Your task to perform on an android device: add a label to a message in the gmail app Image 0: 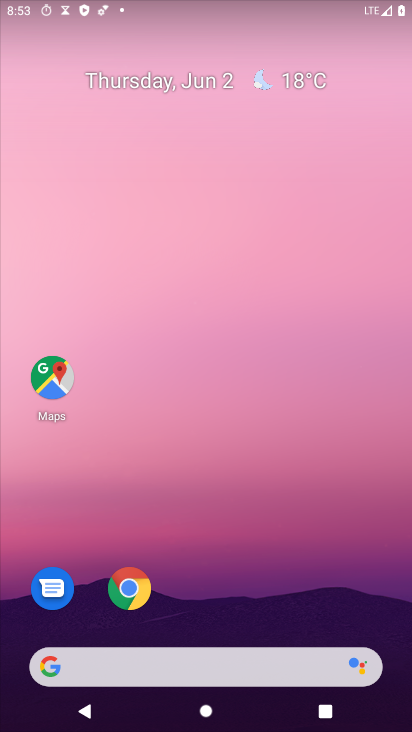
Step 0: drag from (198, 636) to (239, 113)
Your task to perform on an android device: add a label to a message in the gmail app Image 1: 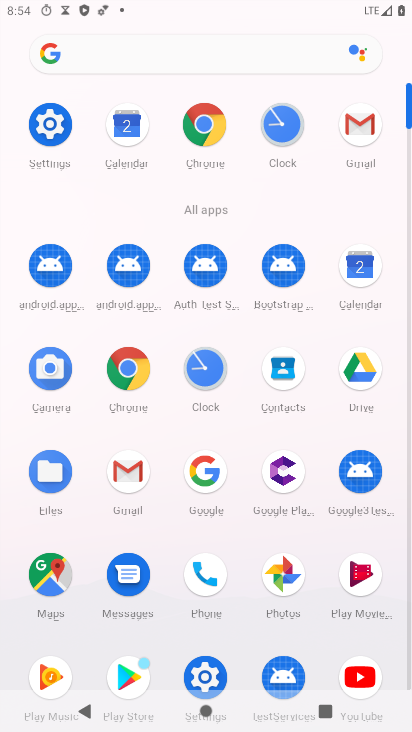
Step 1: click (373, 125)
Your task to perform on an android device: add a label to a message in the gmail app Image 2: 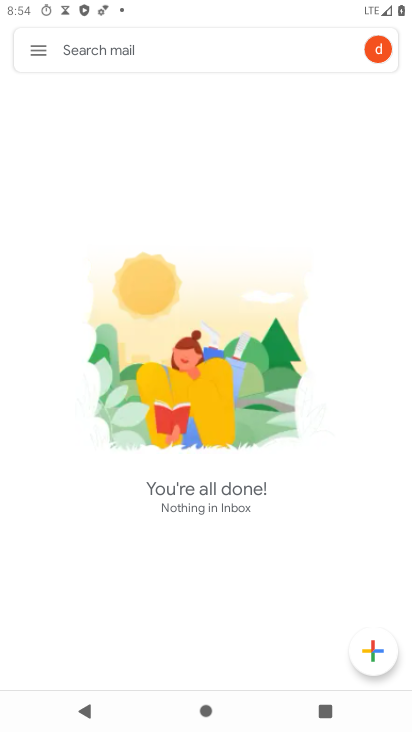
Step 2: click (35, 52)
Your task to perform on an android device: add a label to a message in the gmail app Image 3: 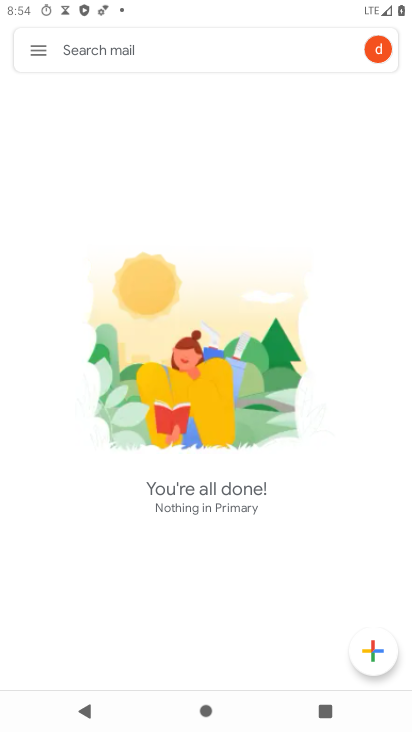
Step 3: click (40, 45)
Your task to perform on an android device: add a label to a message in the gmail app Image 4: 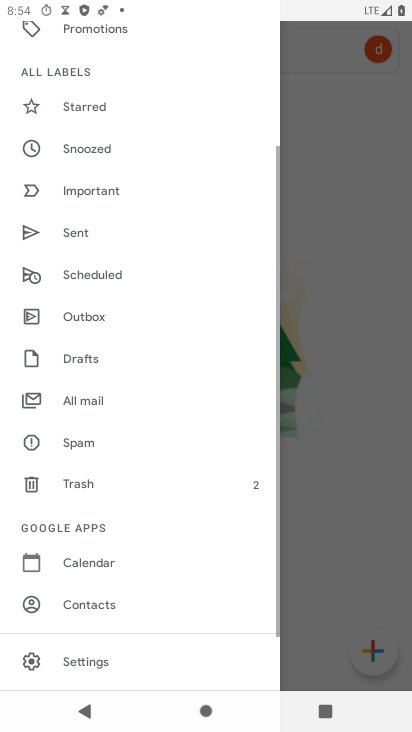
Step 4: click (46, 388)
Your task to perform on an android device: add a label to a message in the gmail app Image 5: 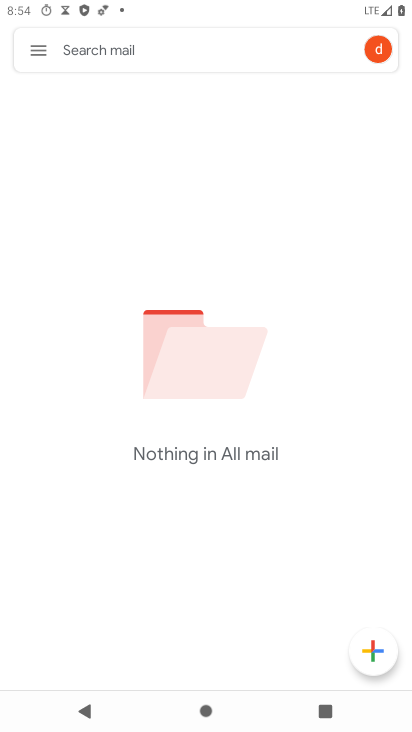
Step 5: task complete